Your task to perform on an android device: Open Youtube and go to "Your channel" Image 0: 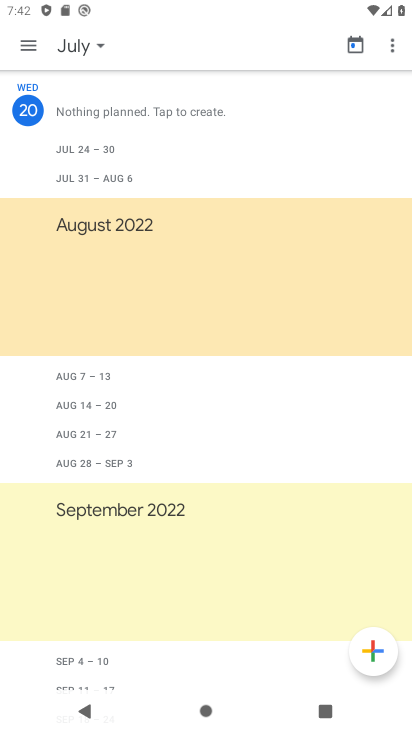
Step 0: press home button
Your task to perform on an android device: Open Youtube and go to "Your channel" Image 1: 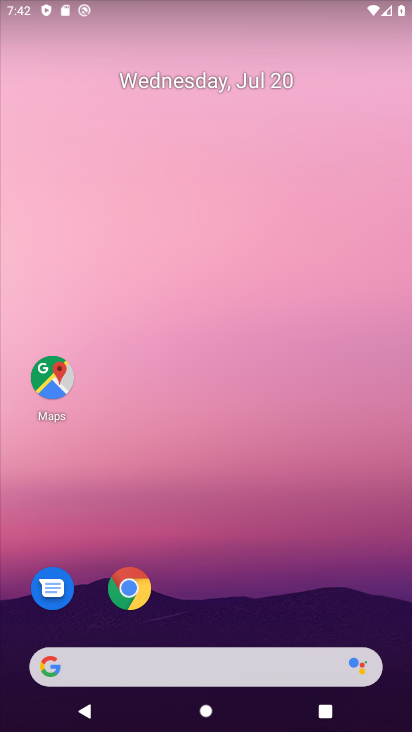
Step 1: drag from (290, 603) to (309, 187)
Your task to perform on an android device: Open Youtube and go to "Your channel" Image 2: 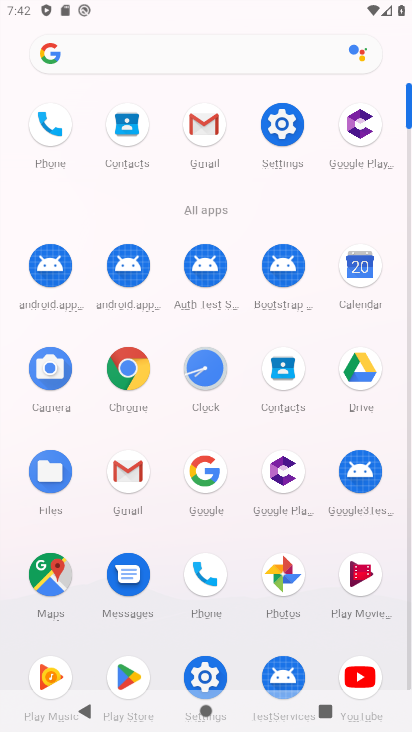
Step 2: click (354, 665)
Your task to perform on an android device: Open Youtube and go to "Your channel" Image 3: 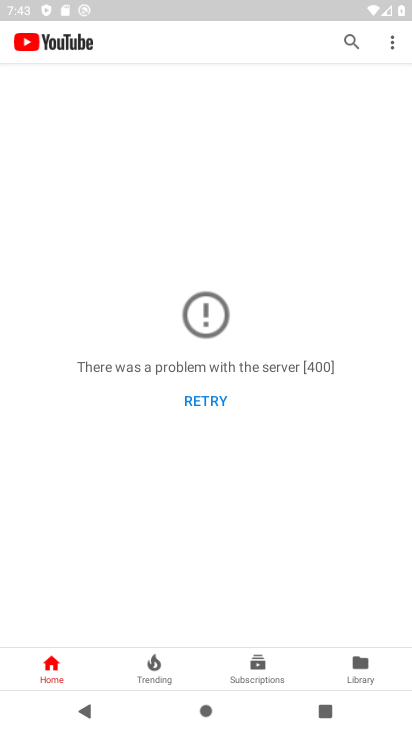
Step 3: click (208, 401)
Your task to perform on an android device: Open Youtube and go to "Your channel" Image 4: 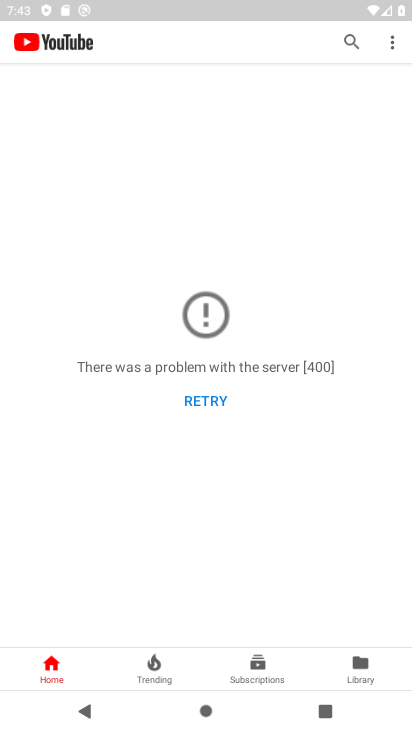
Step 4: click (208, 401)
Your task to perform on an android device: Open Youtube and go to "Your channel" Image 5: 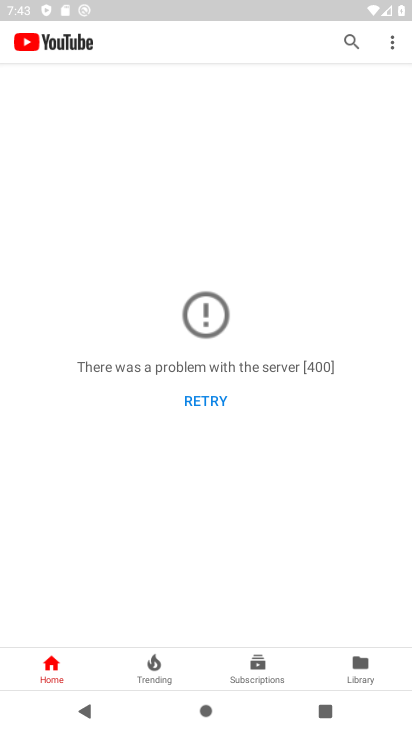
Step 5: click (208, 401)
Your task to perform on an android device: Open Youtube and go to "Your channel" Image 6: 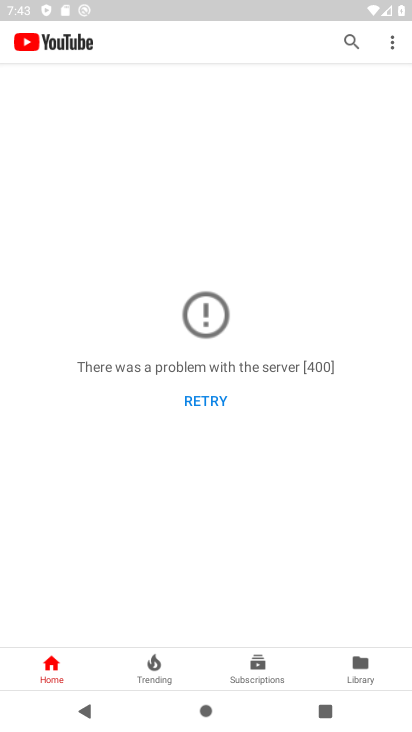
Step 6: task complete